Your task to perform on an android device: Open wifi settings Image 0: 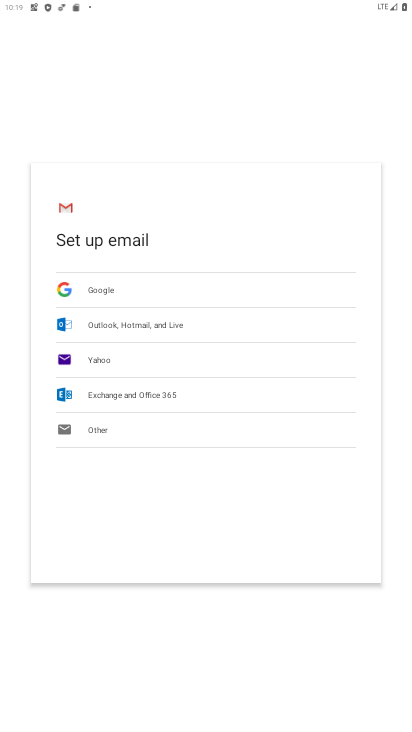
Step 0: press home button
Your task to perform on an android device: Open wifi settings Image 1: 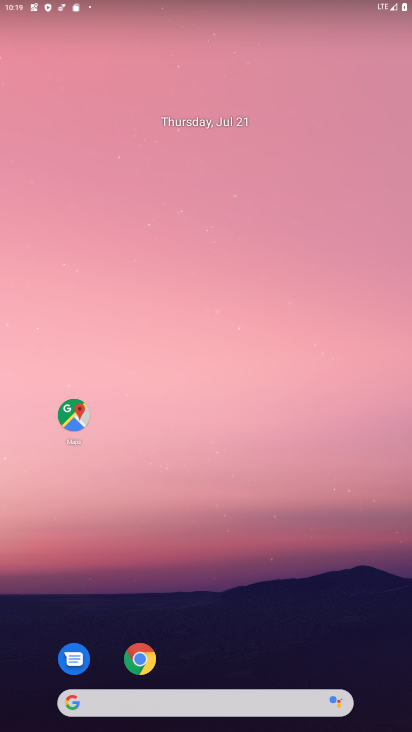
Step 1: drag from (244, 466) to (219, 18)
Your task to perform on an android device: Open wifi settings Image 2: 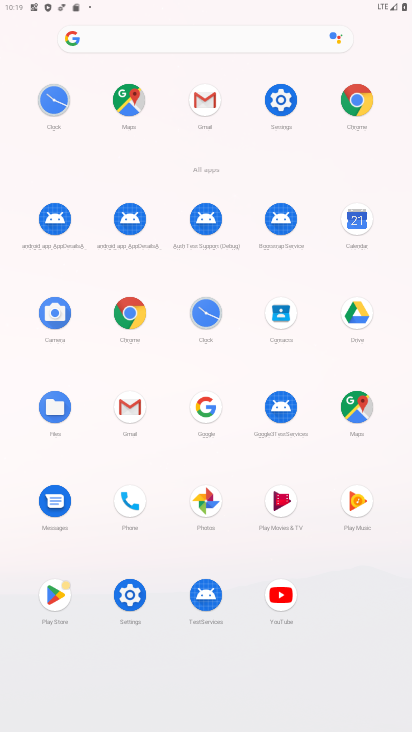
Step 2: click (292, 102)
Your task to perform on an android device: Open wifi settings Image 3: 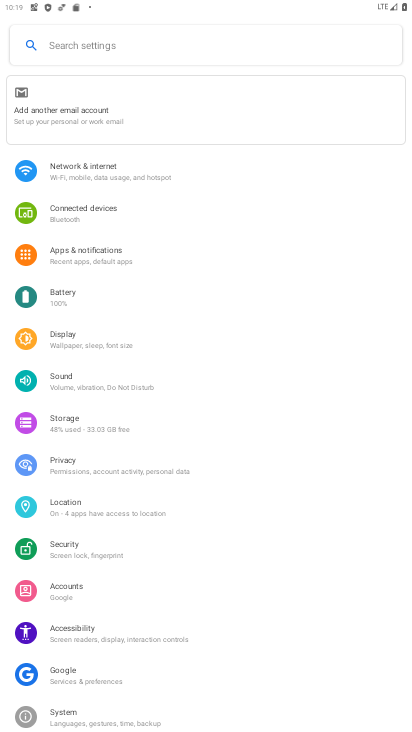
Step 3: click (100, 177)
Your task to perform on an android device: Open wifi settings Image 4: 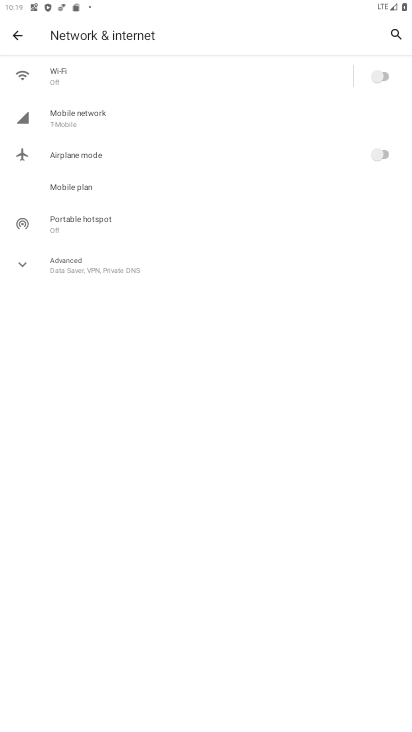
Step 4: click (390, 69)
Your task to perform on an android device: Open wifi settings Image 5: 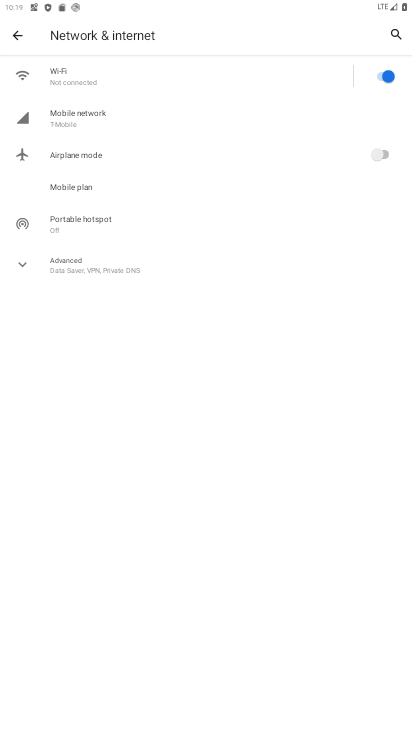
Step 5: click (240, 80)
Your task to perform on an android device: Open wifi settings Image 6: 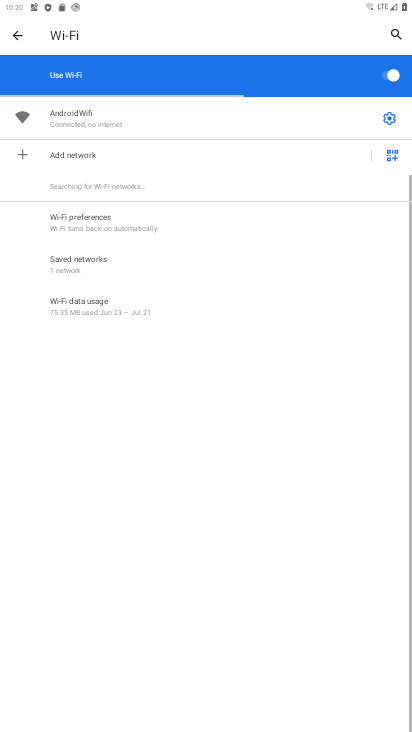
Step 6: click (387, 125)
Your task to perform on an android device: Open wifi settings Image 7: 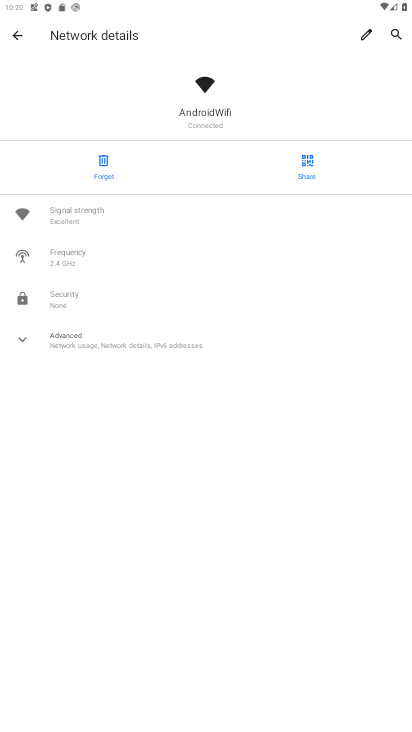
Step 7: task complete